Your task to perform on an android device: Go to eBay Image 0: 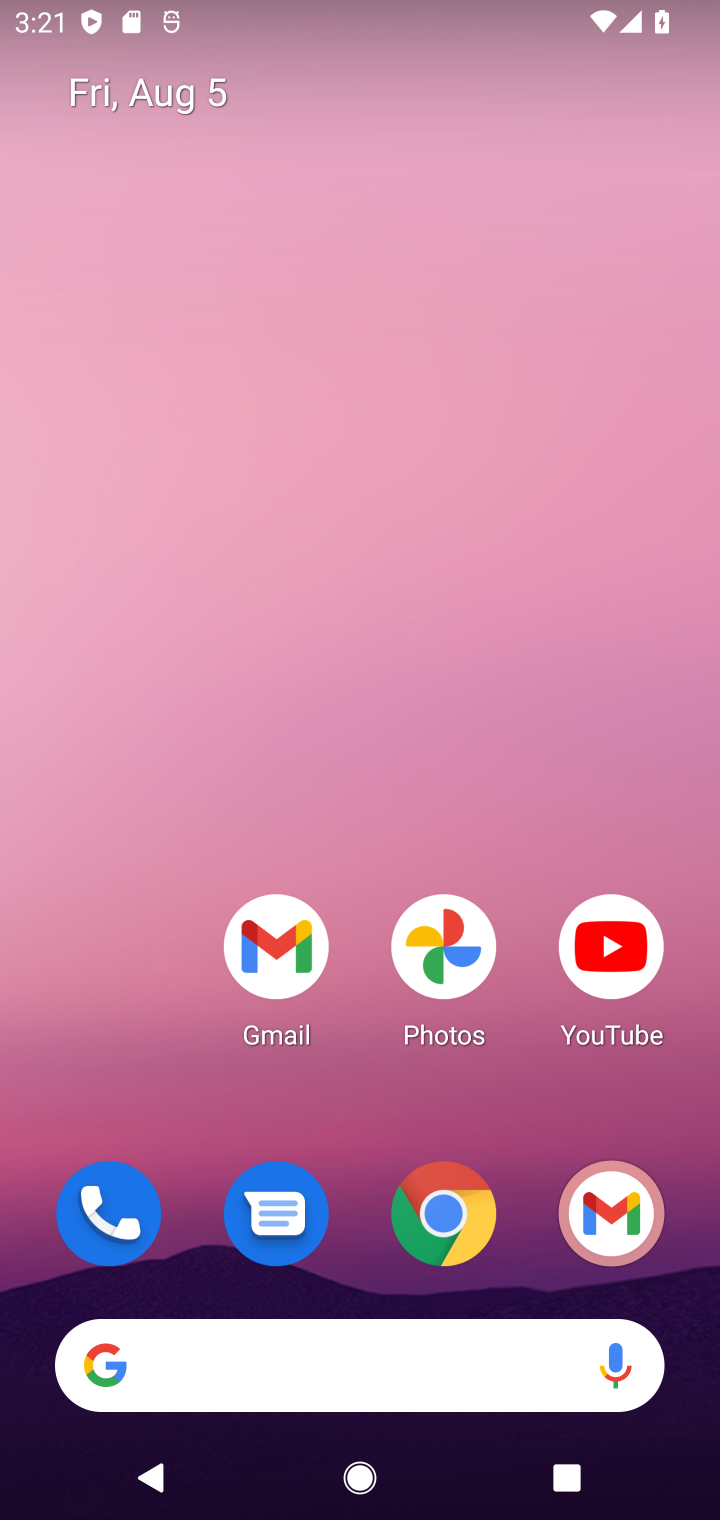
Step 0: click (349, 1360)
Your task to perform on an android device: Go to eBay Image 1: 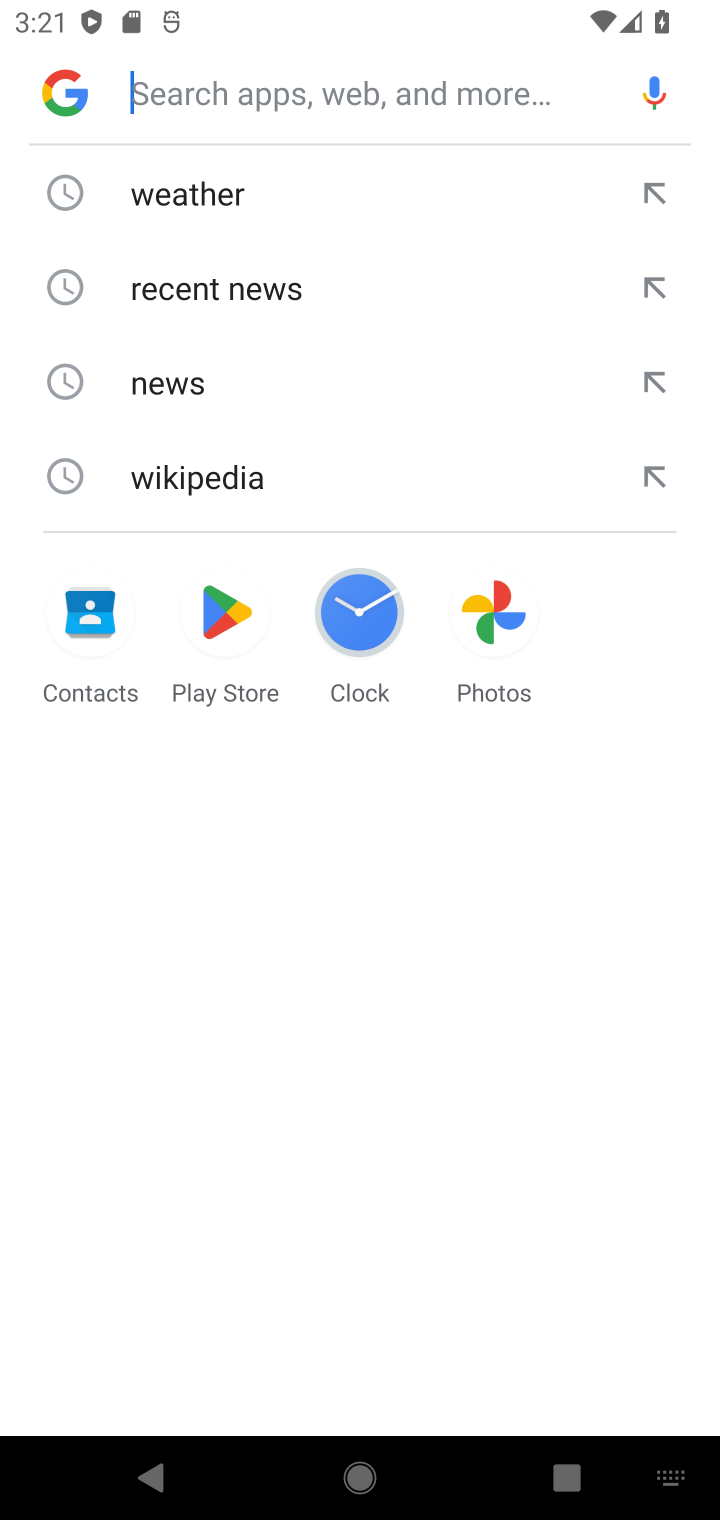
Step 1: type "ebay"
Your task to perform on an android device: Go to eBay Image 2: 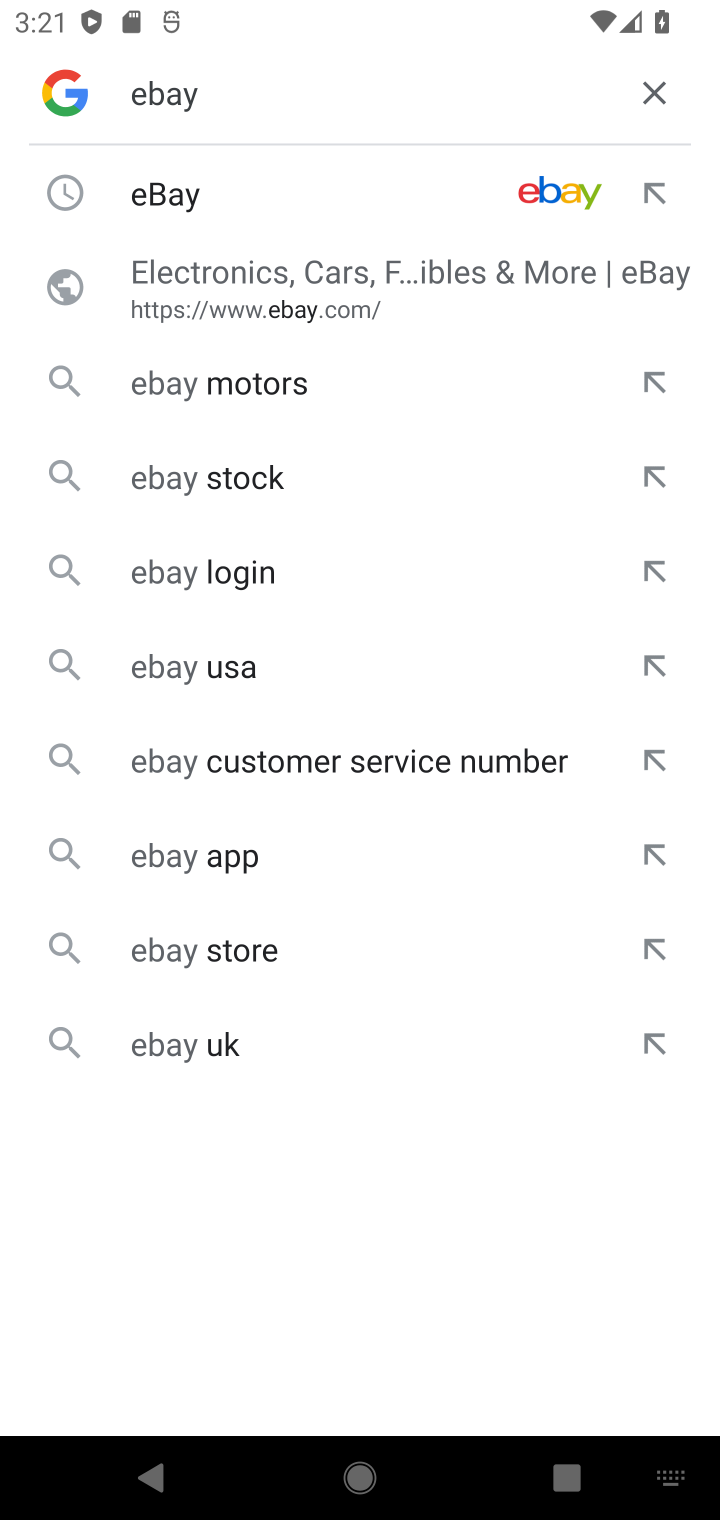
Step 2: click (447, 192)
Your task to perform on an android device: Go to eBay Image 3: 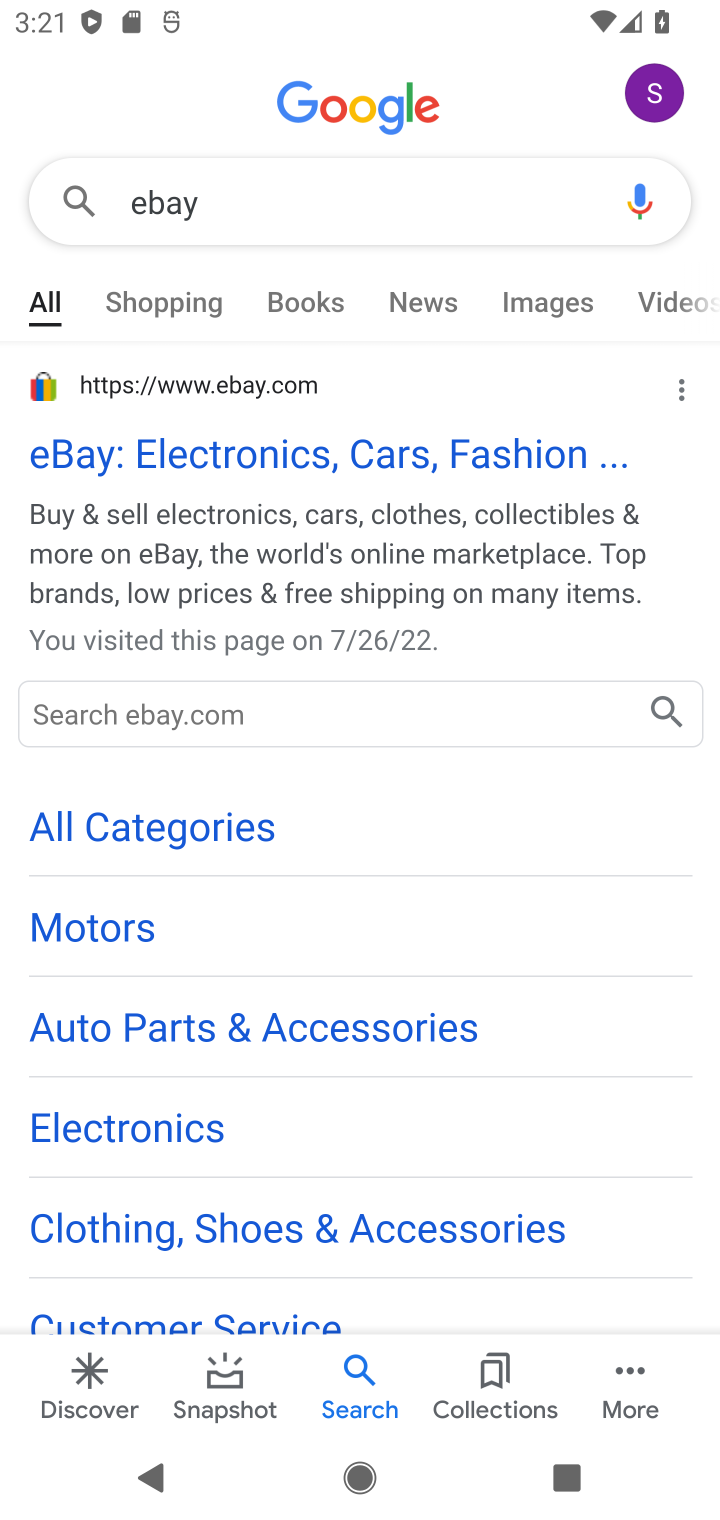
Step 3: click (88, 445)
Your task to perform on an android device: Go to eBay Image 4: 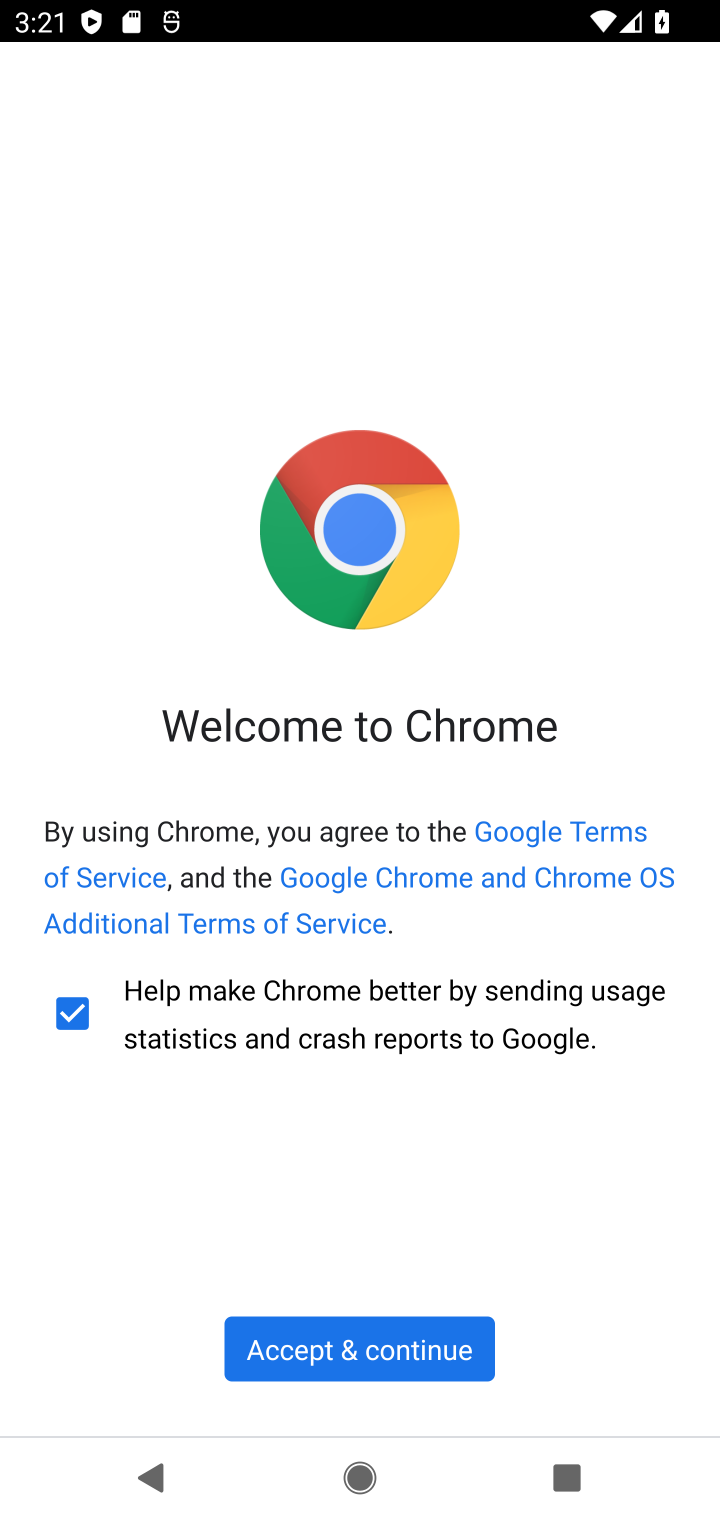
Step 4: click (440, 1359)
Your task to perform on an android device: Go to eBay Image 5: 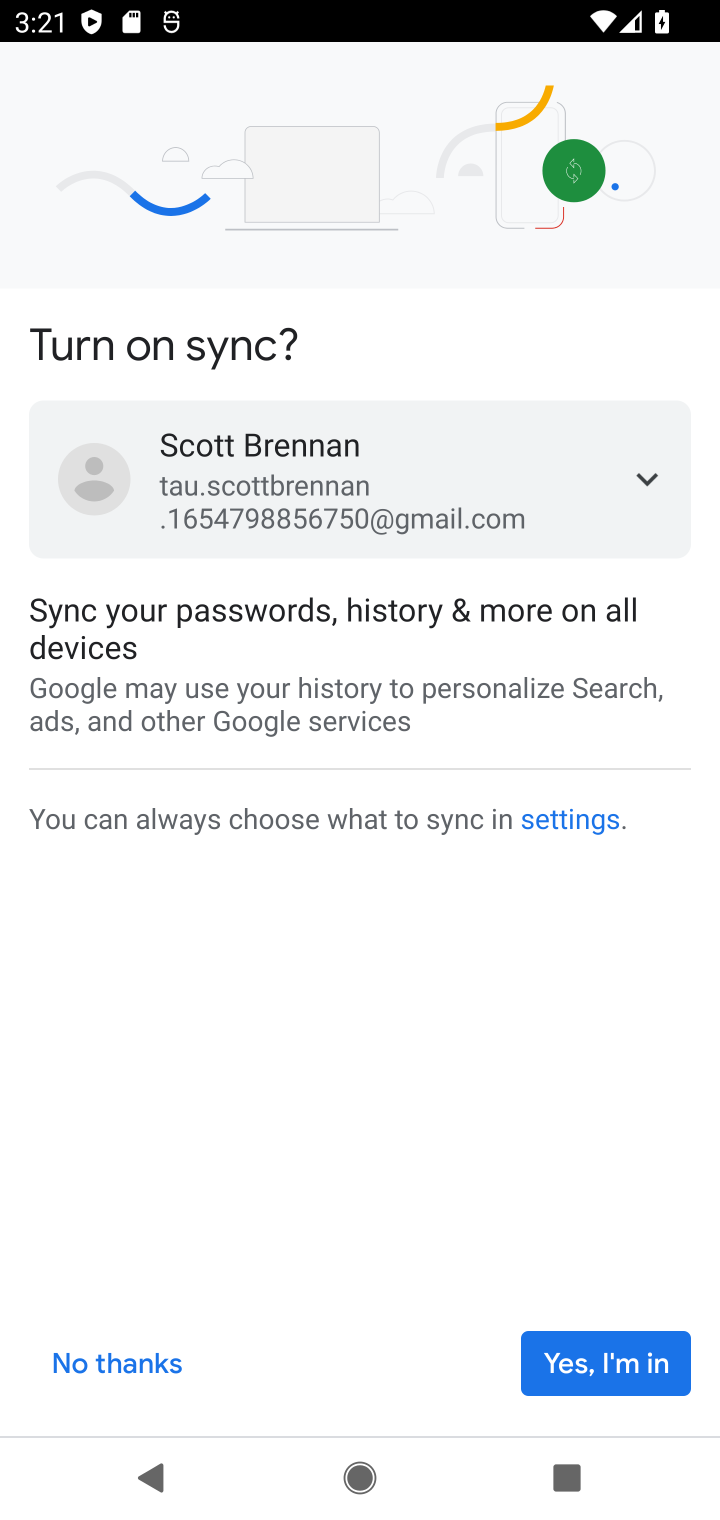
Step 5: click (581, 1353)
Your task to perform on an android device: Go to eBay Image 6: 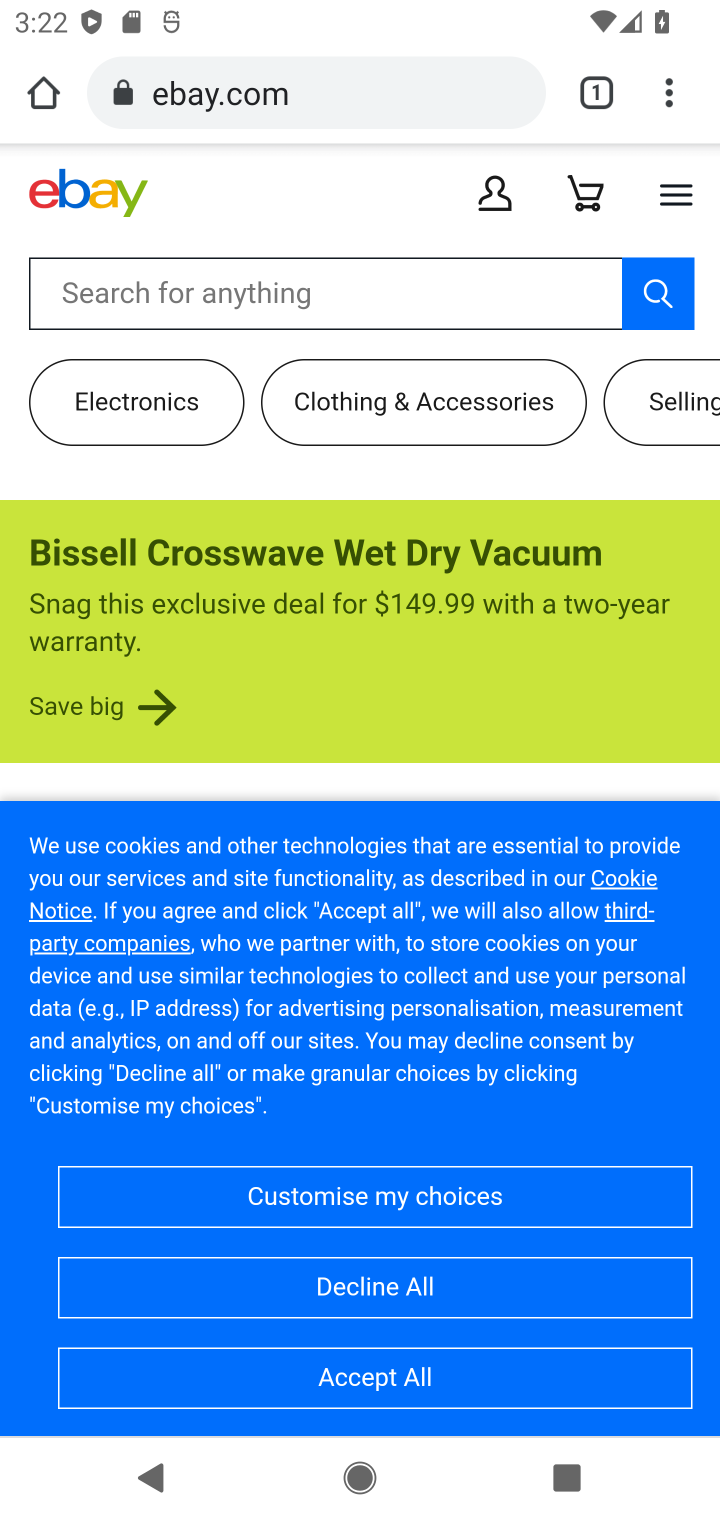
Step 6: task complete